Your task to perform on an android device: Open maps Image 0: 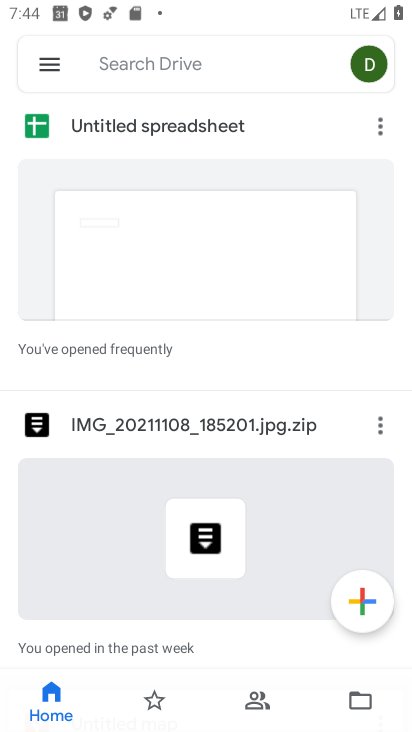
Step 0: press home button
Your task to perform on an android device: Open maps Image 1: 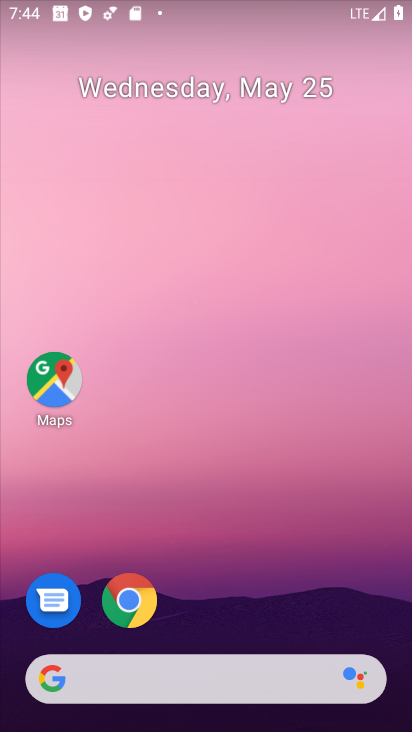
Step 1: click (44, 363)
Your task to perform on an android device: Open maps Image 2: 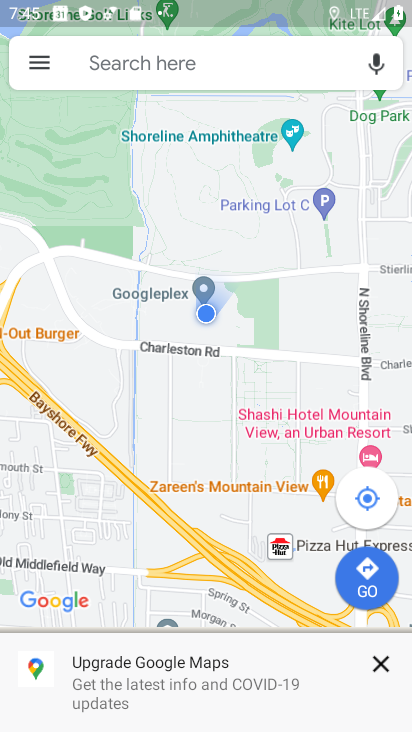
Step 2: task complete